Your task to perform on an android device: open chrome and create a bookmark for the current page Image 0: 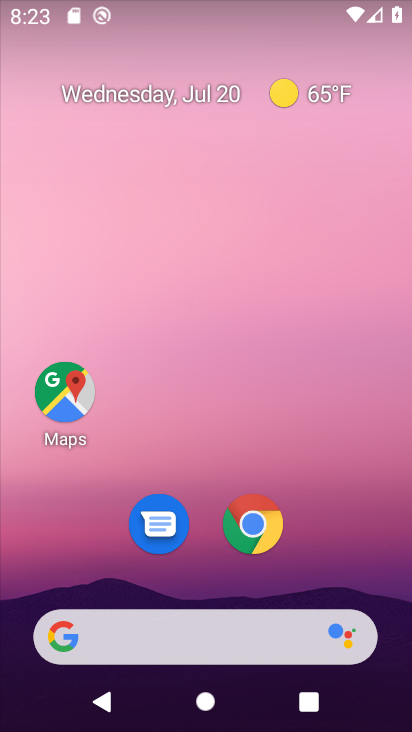
Step 0: click (258, 523)
Your task to perform on an android device: open chrome and create a bookmark for the current page Image 1: 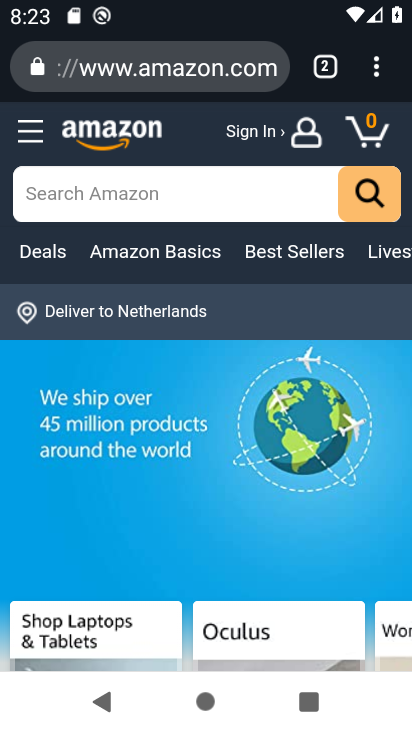
Step 1: click (373, 66)
Your task to perform on an android device: open chrome and create a bookmark for the current page Image 2: 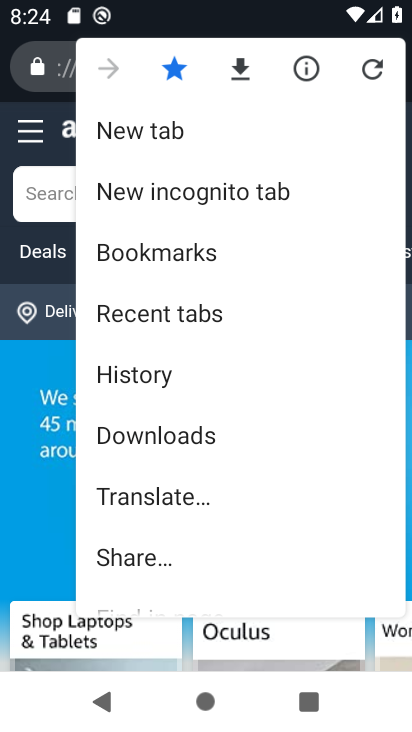
Step 2: click (365, 66)
Your task to perform on an android device: open chrome and create a bookmark for the current page Image 3: 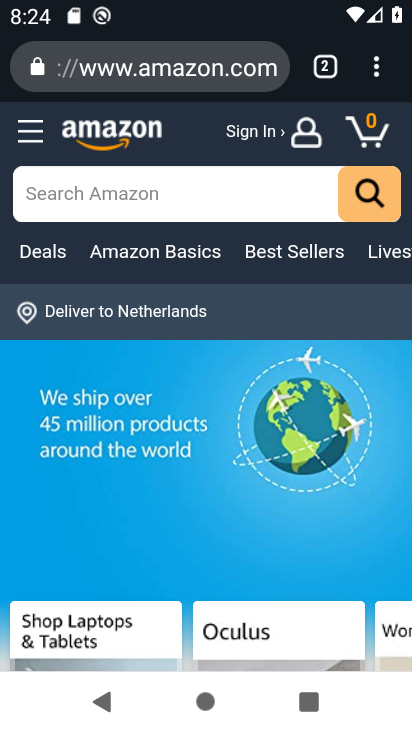
Step 3: task complete